Your task to perform on an android device: Go to wifi settings Image 0: 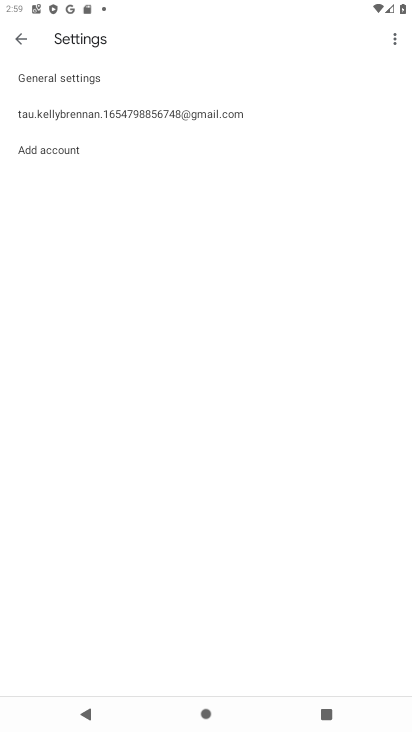
Step 0: press home button
Your task to perform on an android device: Go to wifi settings Image 1: 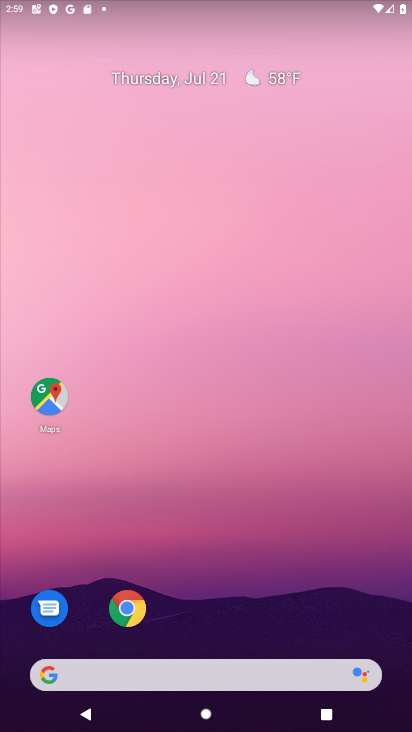
Step 1: drag from (220, 649) to (228, 1)
Your task to perform on an android device: Go to wifi settings Image 2: 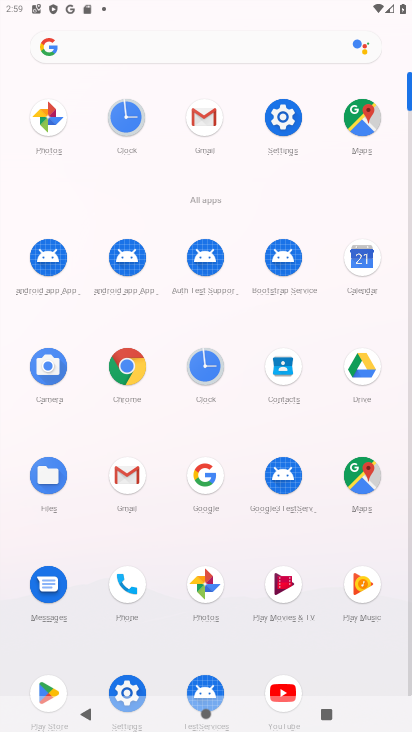
Step 2: click (281, 118)
Your task to perform on an android device: Go to wifi settings Image 3: 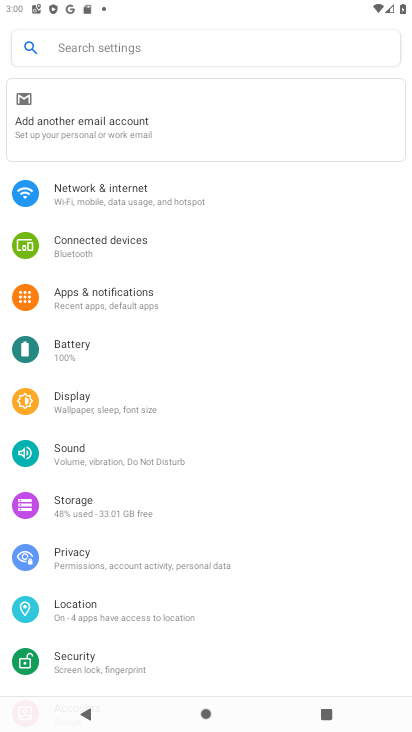
Step 3: click (157, 189)
Your task to perform on an android device: Go to wifi settings Image 4: 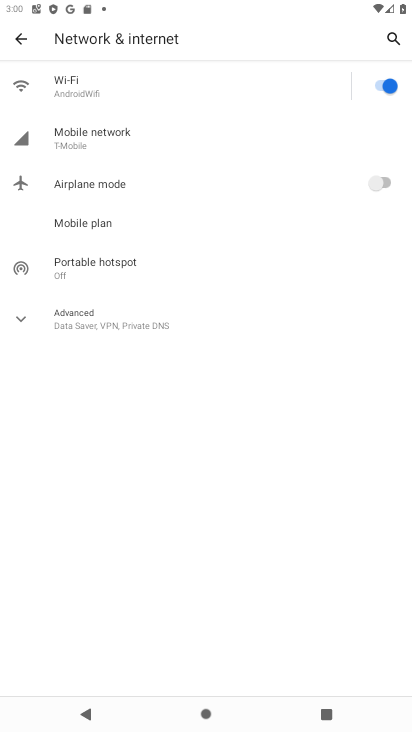
Step 4: click (20, 312)
Your task to perform on an android device: Go to wifi settings Image 5: 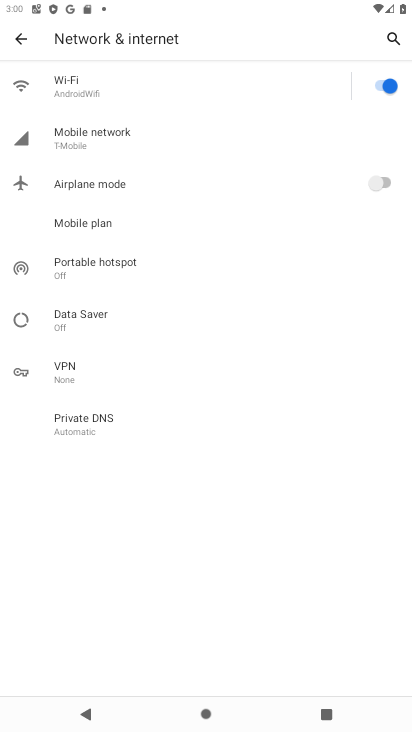
Step 5: task complete